Your task to perform on an android device: stop showing notifications on the lock screen Image 0: 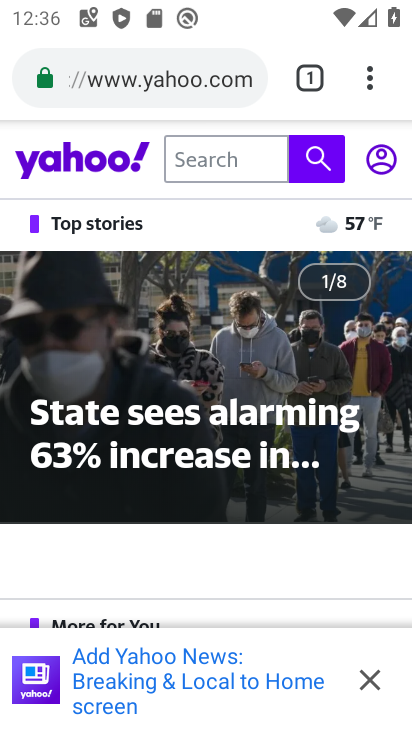
Step 0: press back button
Your task to perform on an android device: stop showing notifications on the lock screen Image 1: 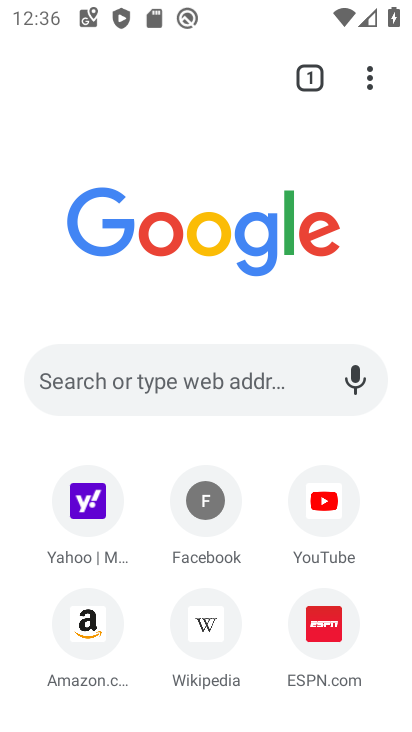
Step 1: press home button
Your task to perform on an android device: stop showing notifications on the lock screen Image 2: 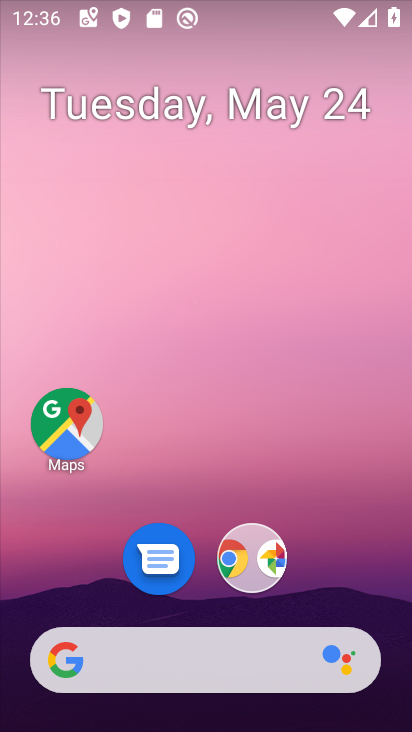
Step 2: drag from (343, 635) to (254, 61)
Your task to perform on an android device: stop showing notifications on the lock screen Image 3: 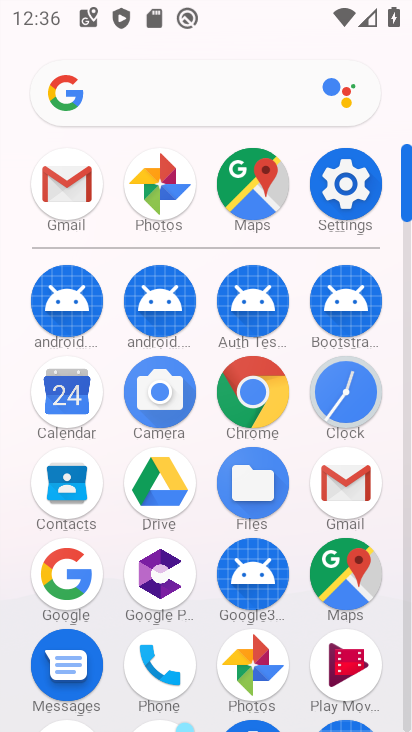
Step 3: click (327, 201)
Your task to perform on an android device: stop showing notifications on the lock screen Image 4: 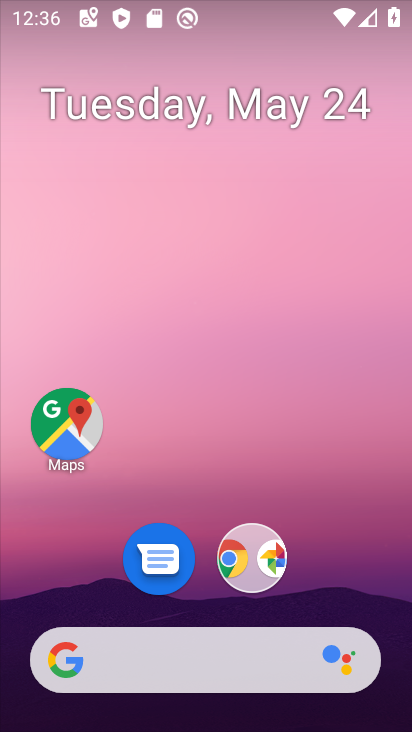
Step 4: drag from (337, 680) to (183, 93)
Your task to perform on an android device: stop showing notifications on the lock screen Image 5: 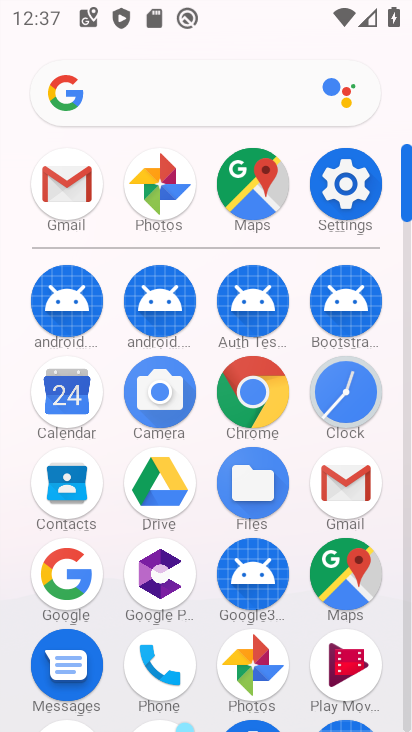
Step 5: click (347, 185)
Your task to perform on an android device: stop showing notifications on the lock screen Image 6: 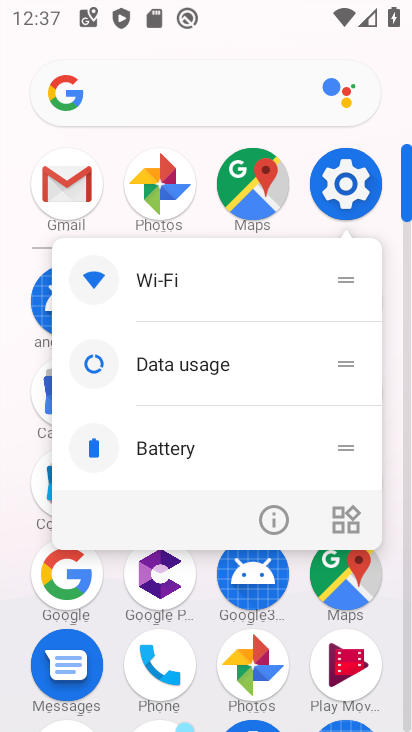
Step 6: click (347, 182)
Your task to perform on an android device: stop showing notifications on the lock screen Image 7: 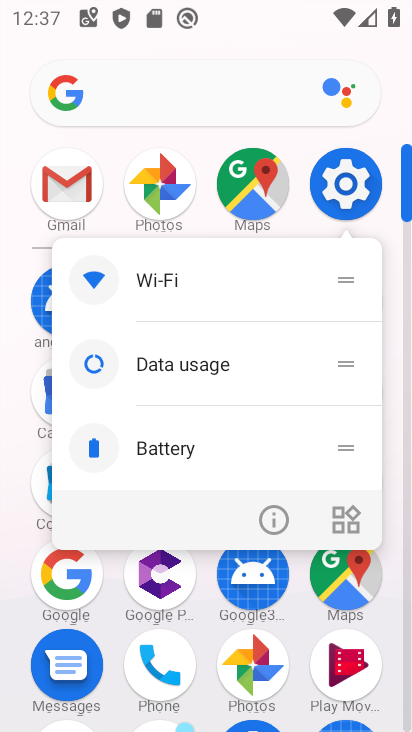
Step 7: click (348, 181)
Your task to perform on an android device: stop showing notifications on the lock screen Image 8: 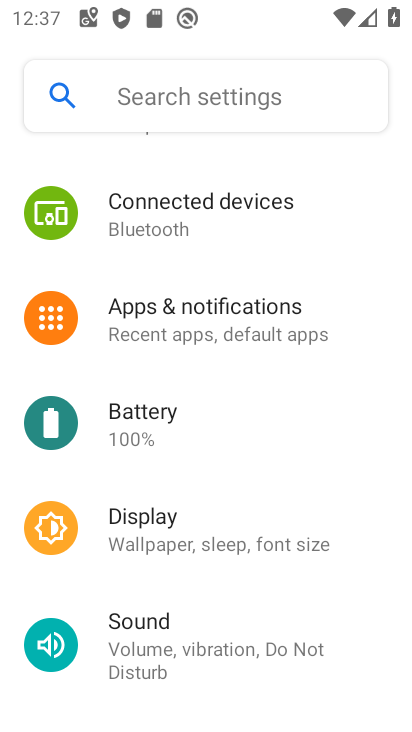
Step 8: click (348, 182)
Your task to perform on an android device: stop showing notifications on the lock screen Image 9: 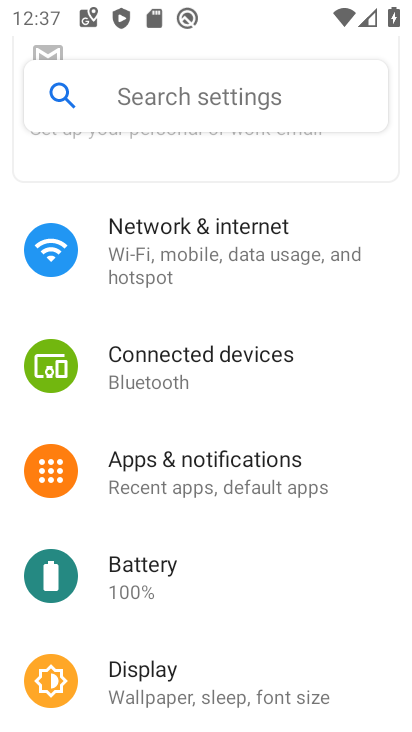
Step 9: click (347, 182)
Your task to perform on an android device: stop showing notifications on the lock screen Image 10: 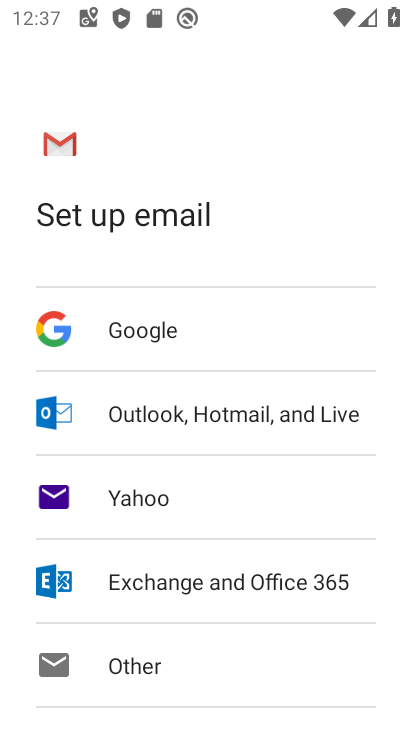
Step 10: press back button
Your task to perform on an android device: stop showing notifications on the lock screen Image 11: 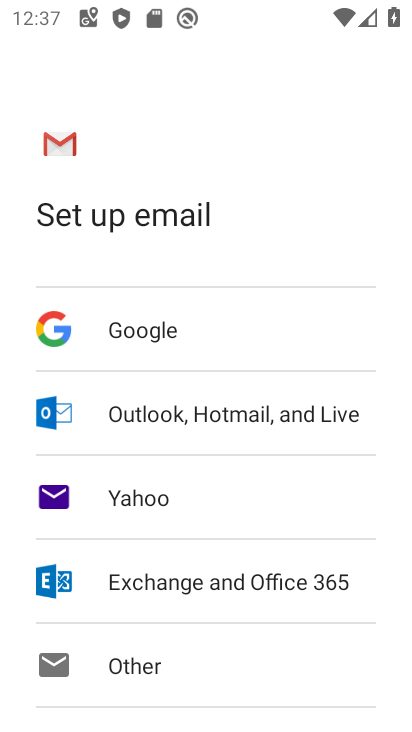
Step 11: press back button
Your task to perform on an android device: stop showing notifications on the lock screen Image 12: 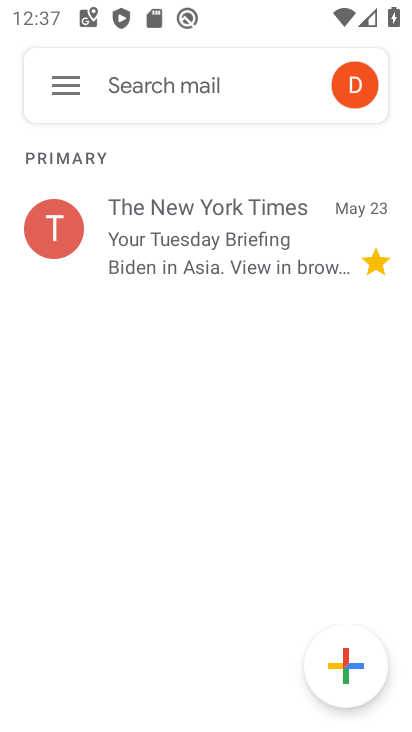
Step 12: click (169, 241)
Your task to perform on an android device: stop showing notifications on the lock screen Image 13: 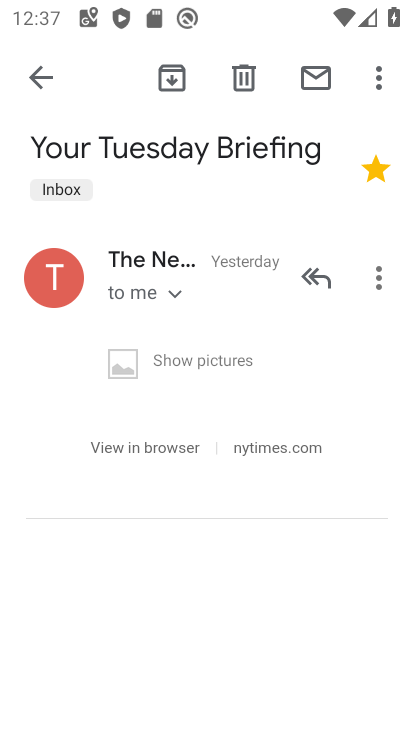
Step 13: click (45, 74)
Your task to perform on an android device: stop showing notifications on the lock screen Image 14: 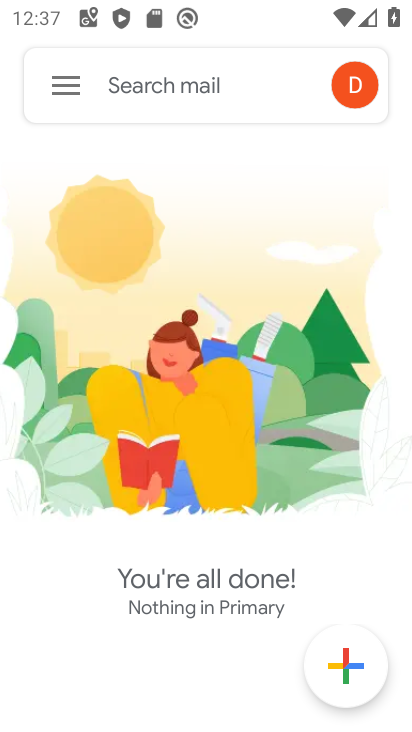
Step 14: click (44, 74)
Your task to perform on an android device: stop showing notifications on the lock screen Image 15: 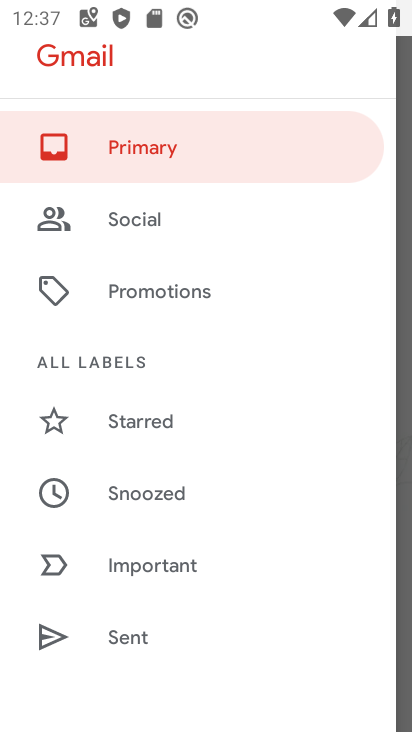
Step 15: drag from (200, 614) to (195, 178)
Your task to perform on an android device: stop showing notifications on the lock screen Image 16: 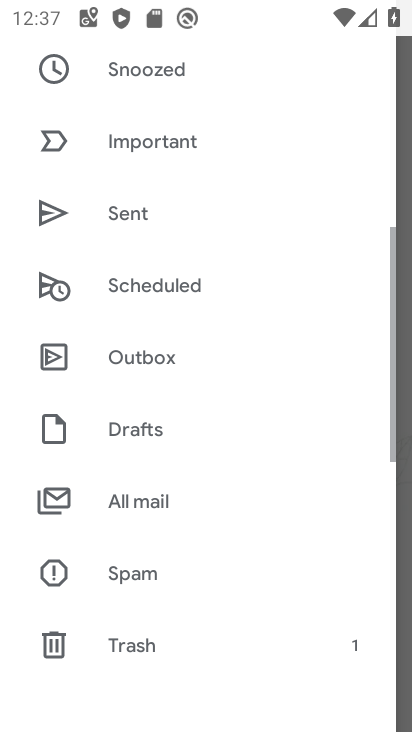
Step 16: drag from (202, 555) to (182, 172)
Your task to perform on an android device: stop showing notifications on the lock screen Image 17: 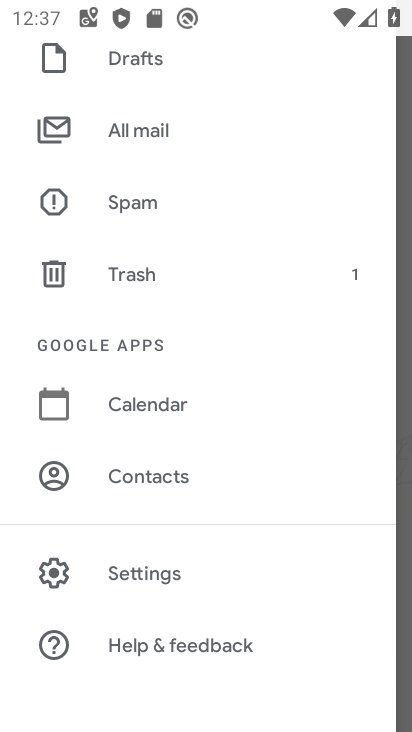
Step 17: click (128, 581)
Your task to perform on an android device: stop showing notifications on the lock screen Image 18: 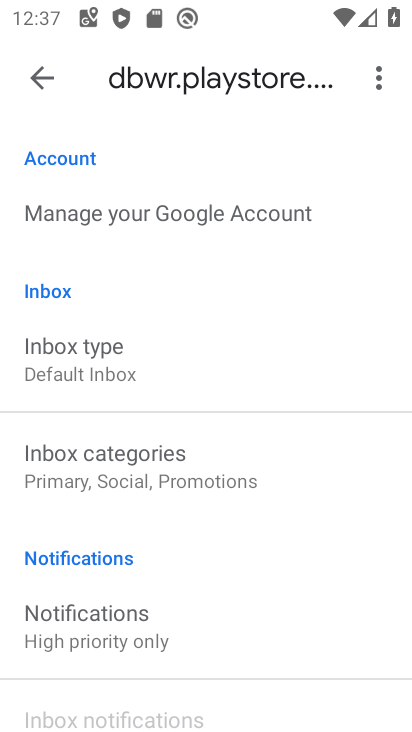
Step 18: drag from (100, 613) to (46, 455)
Your task to perform on an android device: stop showing notifications on the lock screen Image 19: 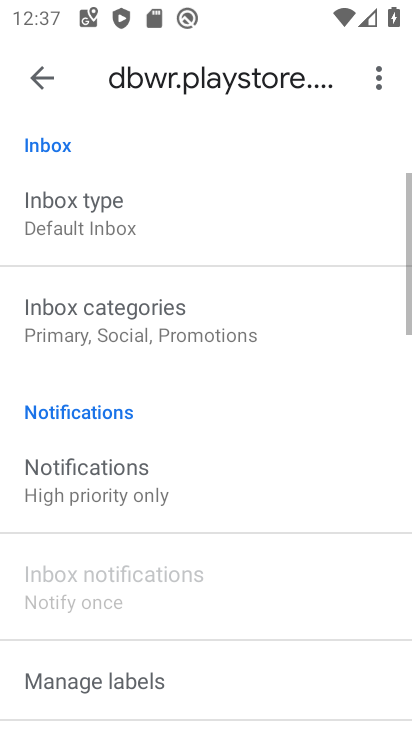
Step 19: drag from (104, 618) to (99, 280)
Your task to perform on an android device: stop showing notifications on the lock screen Image 20: 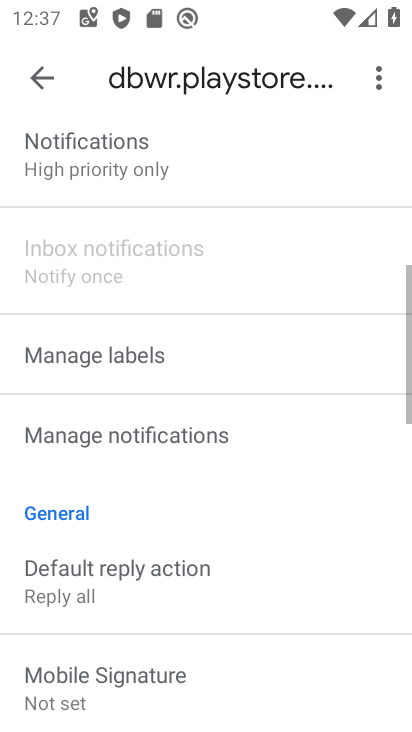
Step 20: drag from (157, 552) to (140, 3)
Your task to perform on an android device: stop showing notifications on the lock screen Image 21: 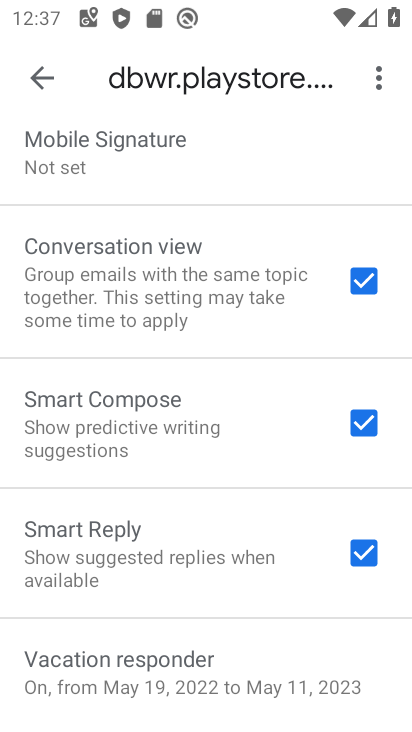
Step 21: drag from (93, 249) to (161, 587)
Your task to perform on an android device: stop showing notifications on the lock screen Image 22: 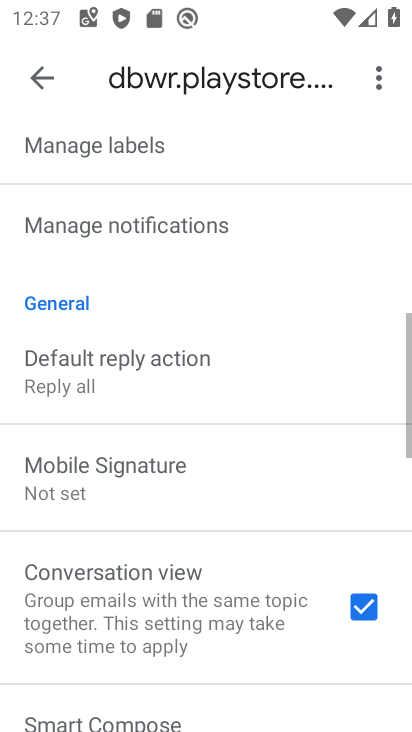
Step 22: drag from (93, 241) to (176, 578)
Your task to perform on an android device: stop showing notifications on the lock screen Image 23: 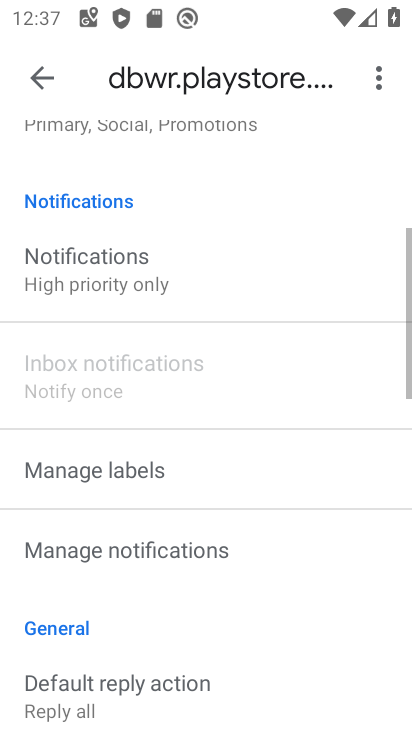
Step 23: drag from (142, 535) to (178, 717)
Your task to perform on an android device: stop showing notifications on the lock screen Image 24: 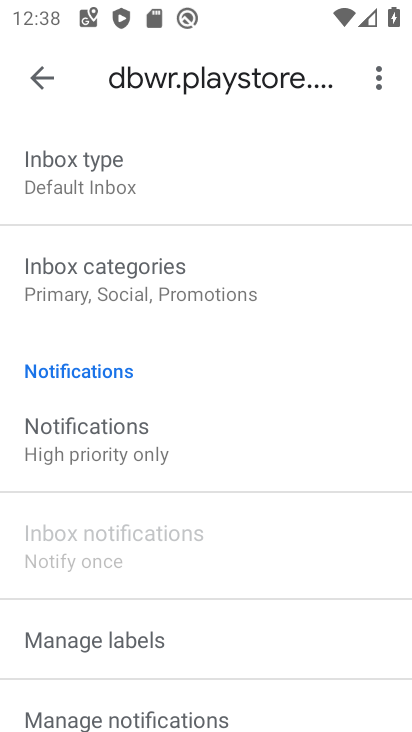
Step 24: click (76, 407)
Your task to perform on an android device: stop showing notifications on the lock screen Image 25: 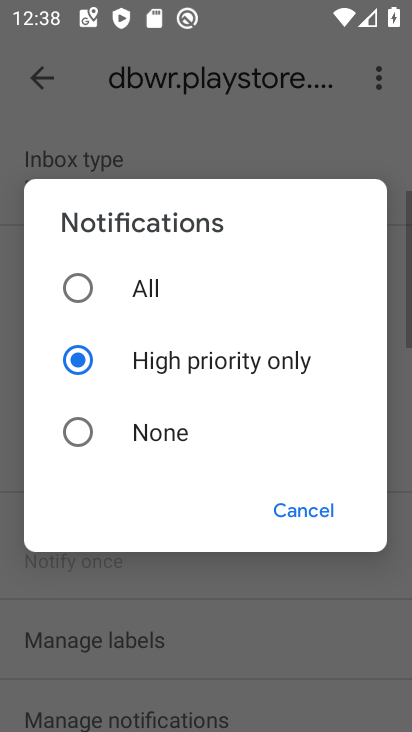
Step 25: click (76, 405)
Your task to perform on an android device: stop showing notifications on the lock screen Image 26: 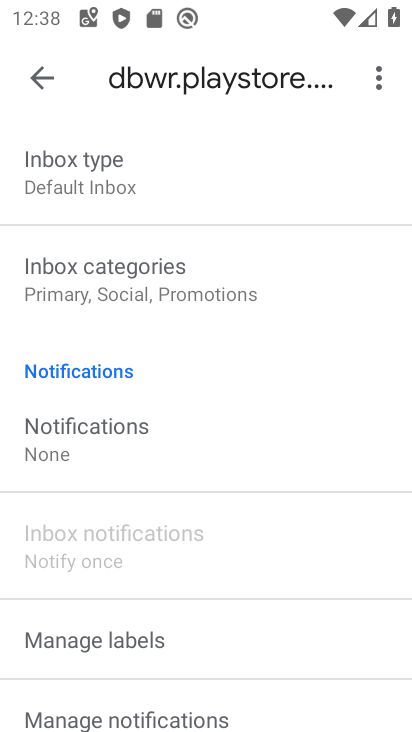
Step 26: click (73, 433)
Your task to perform on an android device: stop showing notifications on the lock screen Image 27: 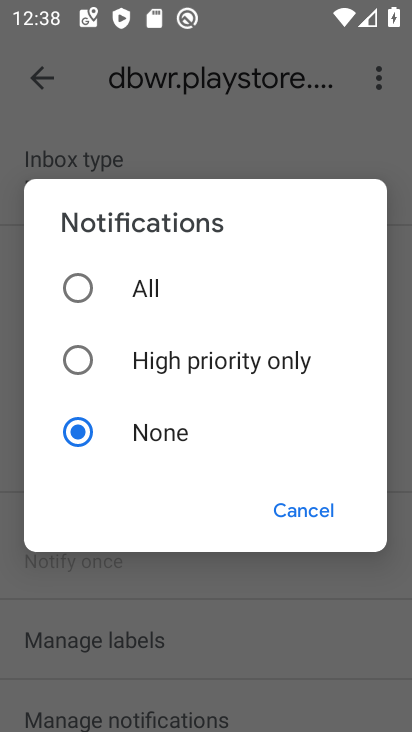
Step 27: click (55, 427)
Your task to perform on an android device: stop showing notifications on the lock screen Image 28: 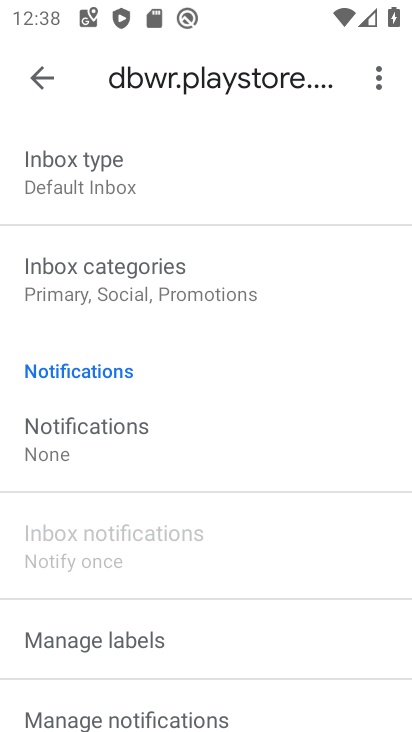
Step 28: click (59, 432)
Your task to perform on an android device: stop showing notifications on the lock screen Image 29: 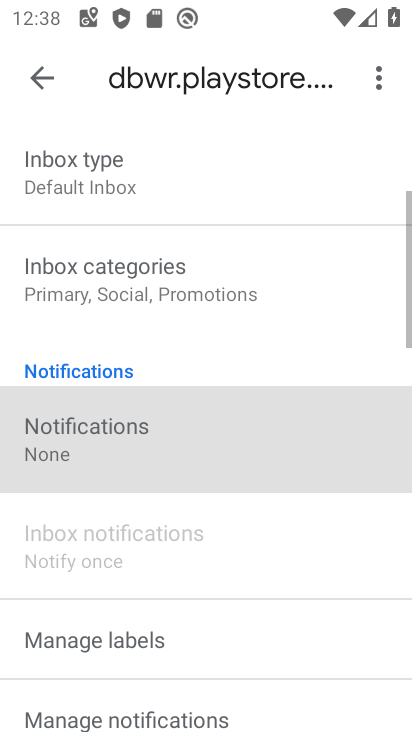
Step 29: click (64, 428)
Your task to perform on an android device: stop showing notifications on the lock screen Image 30: 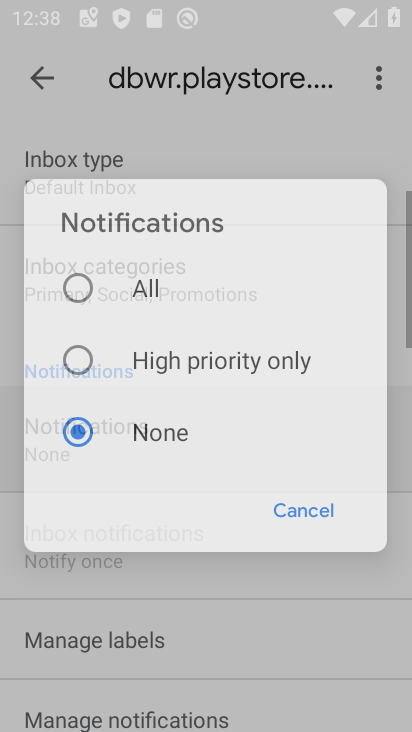
Step 30: click (9, 670)
Your task to perform on an android device: stop showing notifications on the lock screen Image 31: 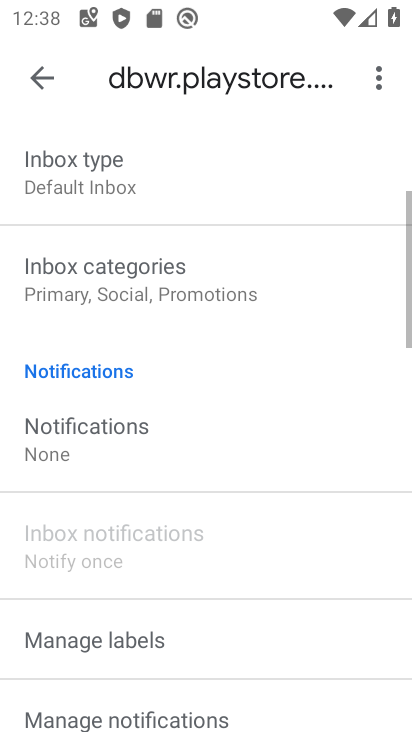
Step 31: click (298, 513)
Your task to perform on an android device: stop showing notifications on the lock screen Image 32: 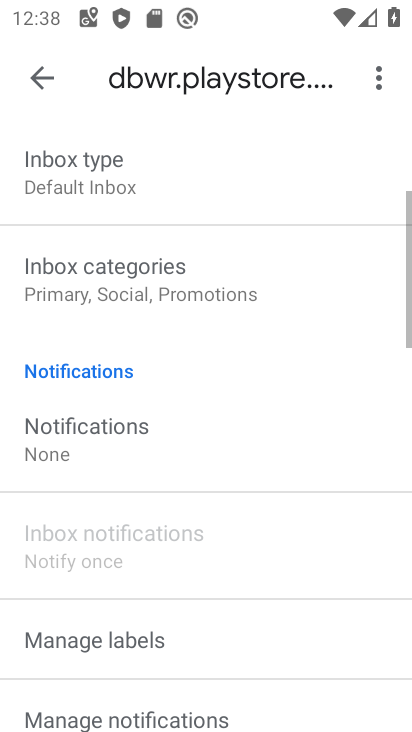
Step 32: task complete